Your task to perform on an android device: Open Yahoo.com Image 0: 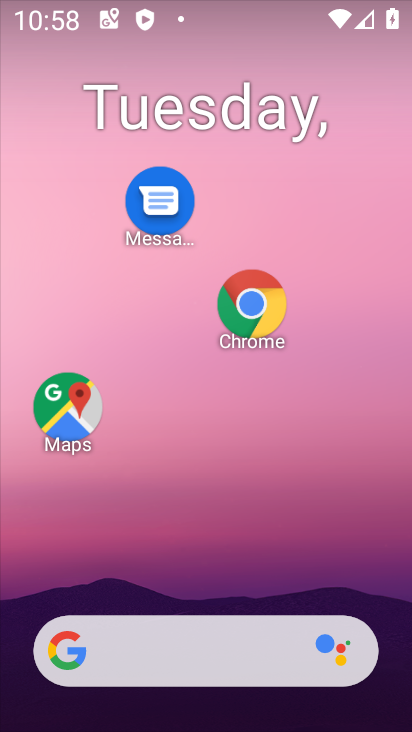
Step 0: drag from (280, 421) to (359, 145)
Your task to perform on an android device: Open Yahoo.com Image 1: 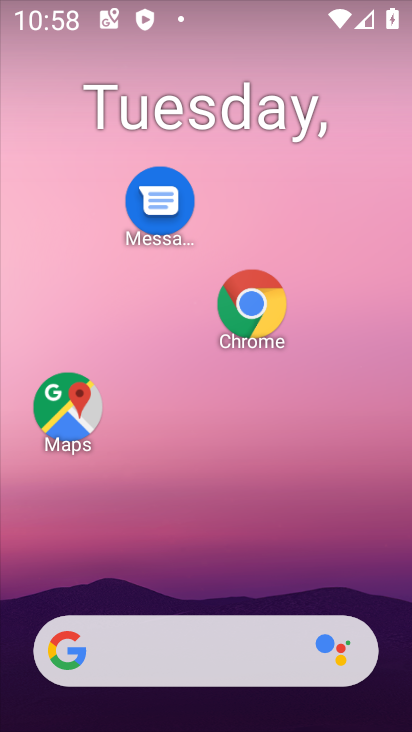
Step 1: drag from (281, 489) to (328, 150)
Your task to perform on an android device: Open Yahoo.com Image 2: 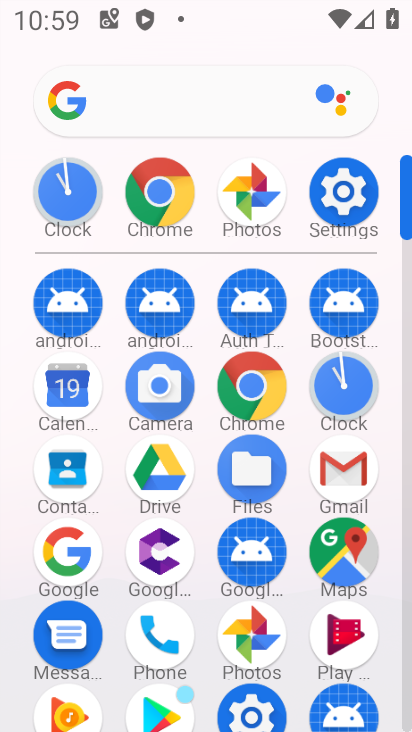
Step 2: click (249, 391)
Your task to perform on an android device: Open Yahoo.com Image 3: 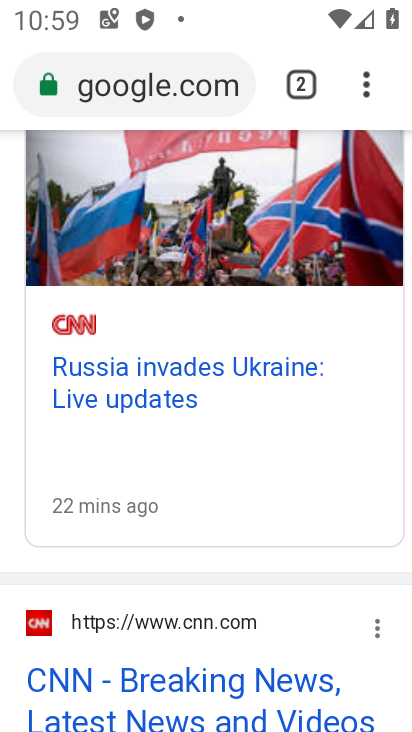
Step 3: click (360, 81)
Your task to perform on an android device: Open Yahoo.com Image 4: 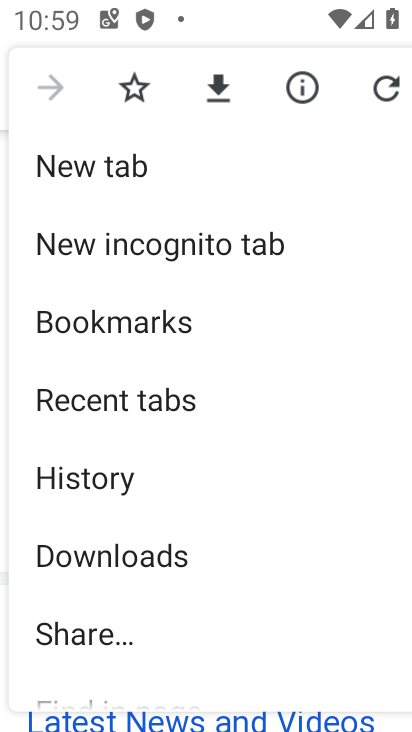
Step 4: click (171, 181)
Your task to perform on an android device: Open Yahoo.com Image 5: 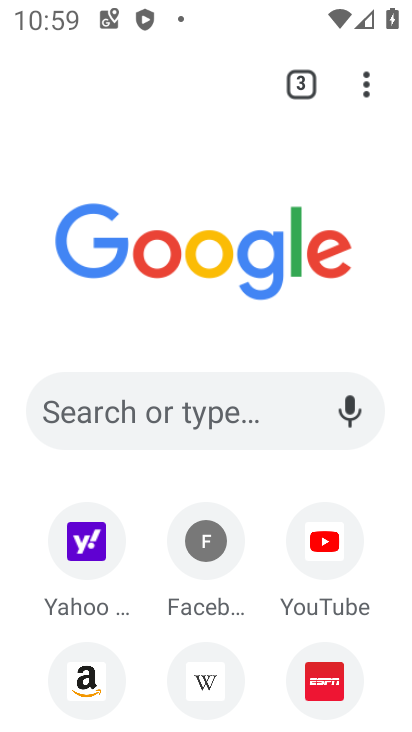
Step 5: click (87, 540)
Your task to perform on an android device: Open Yahoo.com Image 6: 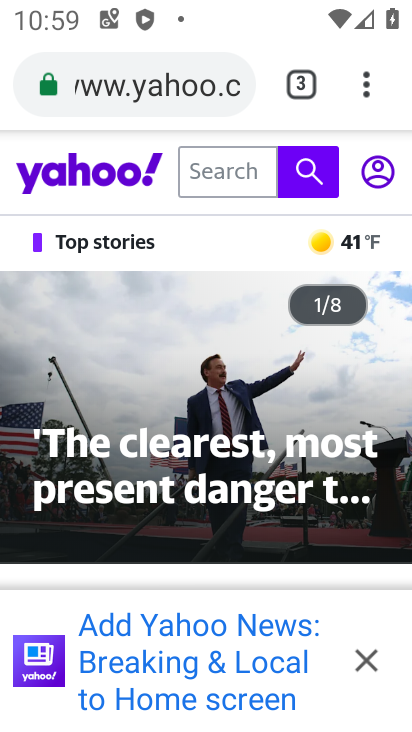
Step 6: task complete